Your task to perform on an android device: toggle location history Image 0: 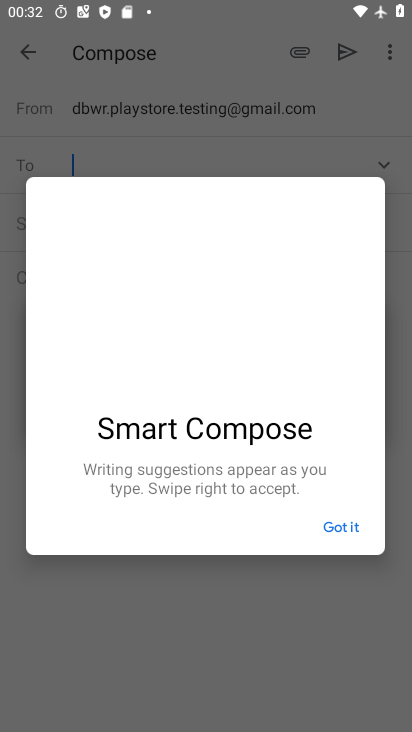
Step 0: press home button
Your task to perform on an android device: toggle location history Image 1: 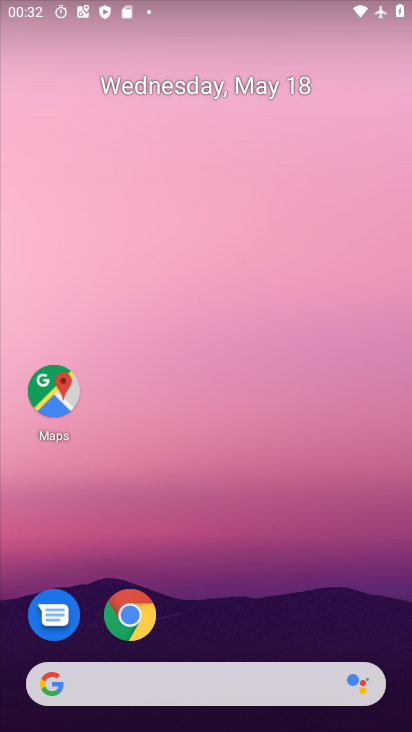
Step 1: drag from (208, 602) to (240, 238)
Your task to perform on an android device: toggle location history Image 2: 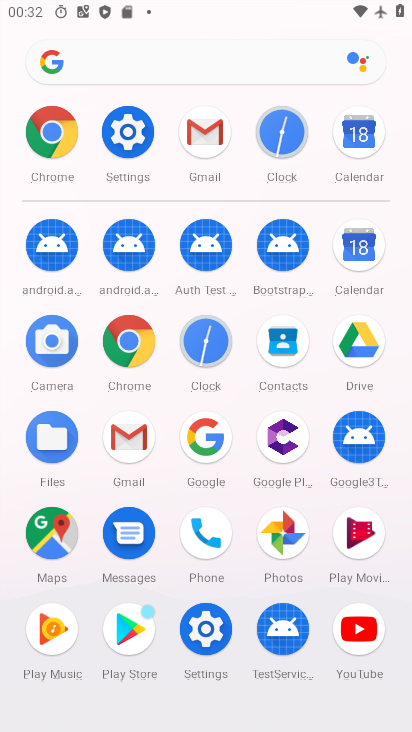
Step 2: click (120, 132)
Your task to perform on an android device: toggle location history Image 3: 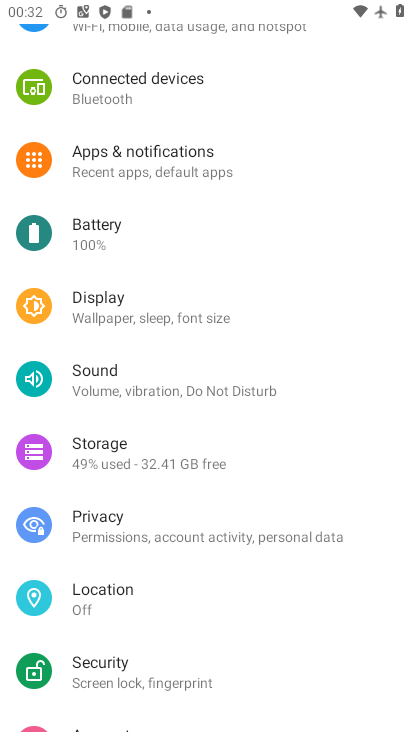
Step 3: click (148, 612)
Your task to perform on an android device: toggle location history Image 4: 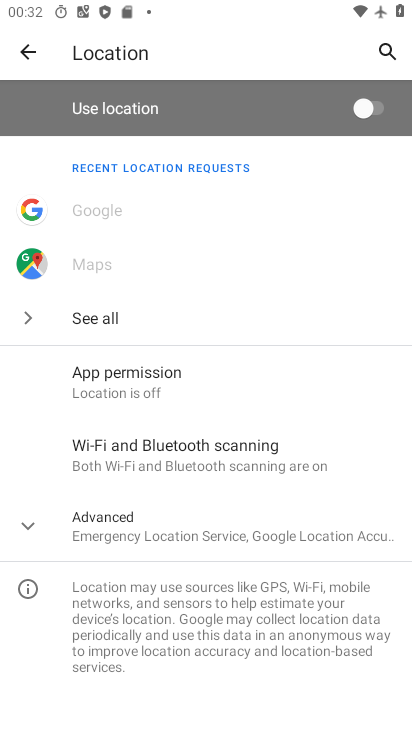
Step 4: click (169, 541)
Your task to perform on an android device: toggle location history Image 5: 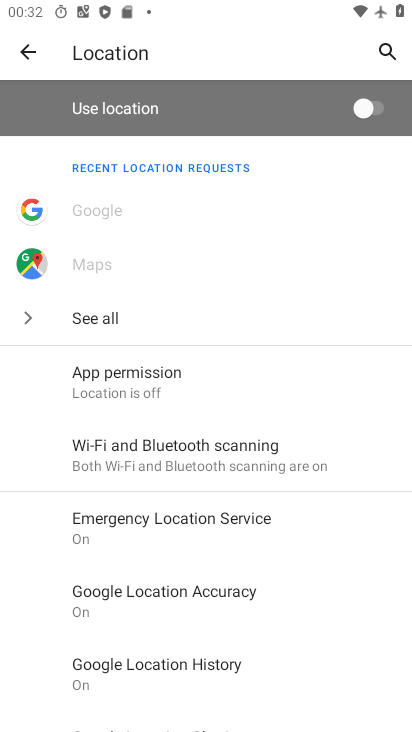
Step 5: click (253, 479)
Your task to perform on an android device: toggle location history Image 6: 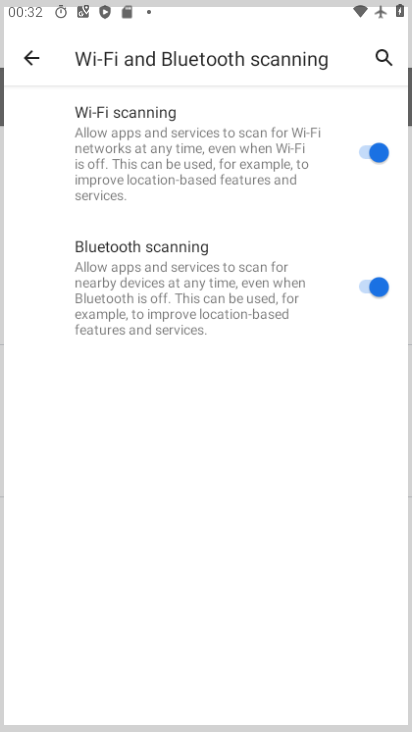
Step 6: click (221, 658)
Your task to perform on an android device: toggle location history Image 7: 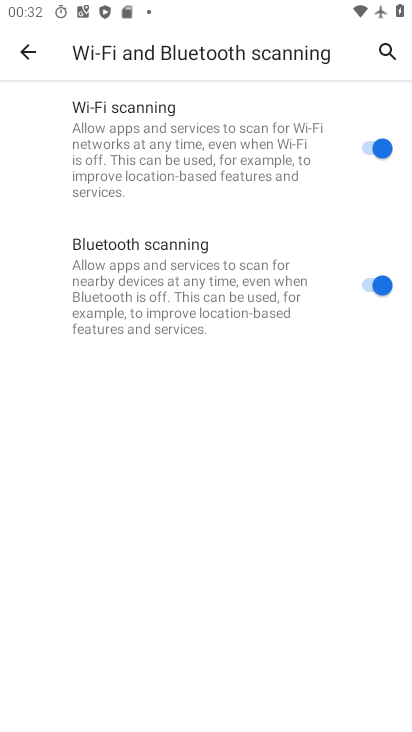
Step 7: click (30, 49)
Your task to perform on an android device: toggle location history Image 8: 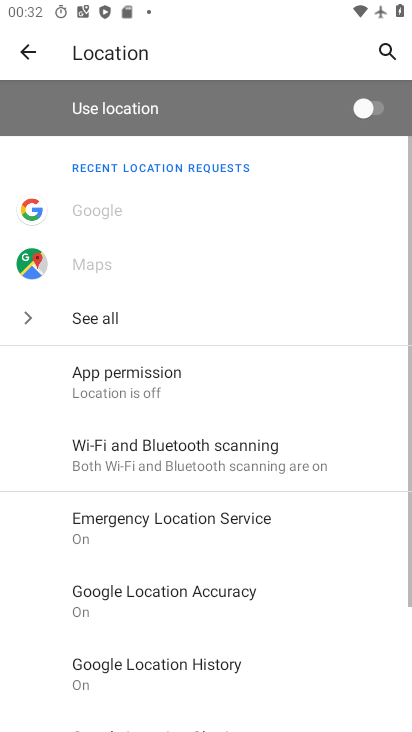
Step 8: drag from (201, 676) to (230, 490)
Your task to perform on an android device: toggle location history Image 9: 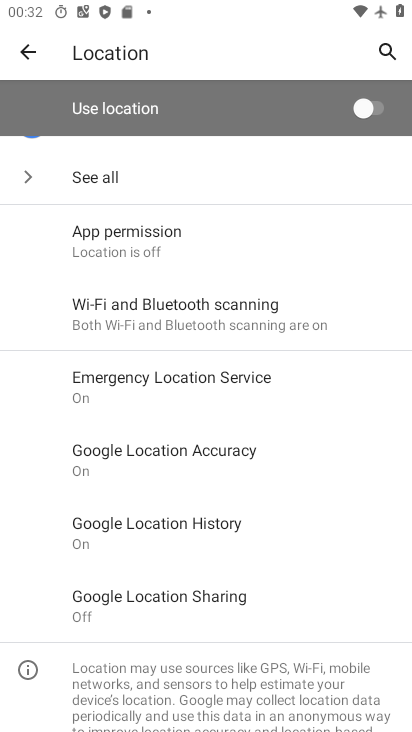
Step 9: click (219, 534)
Your task to perform on an android device: toggle location history Image 10: 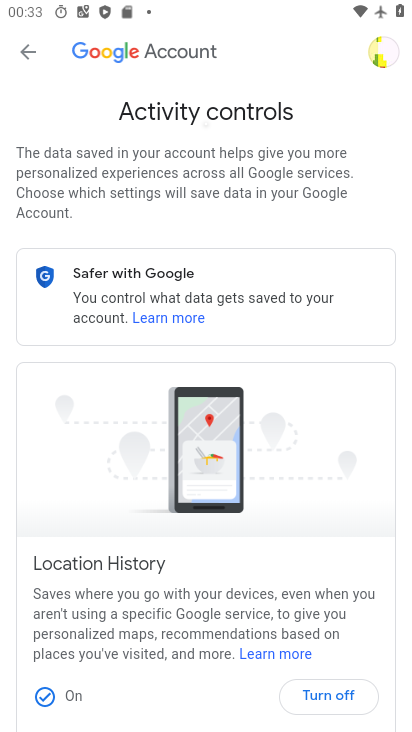
Step 10: drag from (252, 659) to (302, 228)
Your task to perform on an android device: toggle location history Image 11: 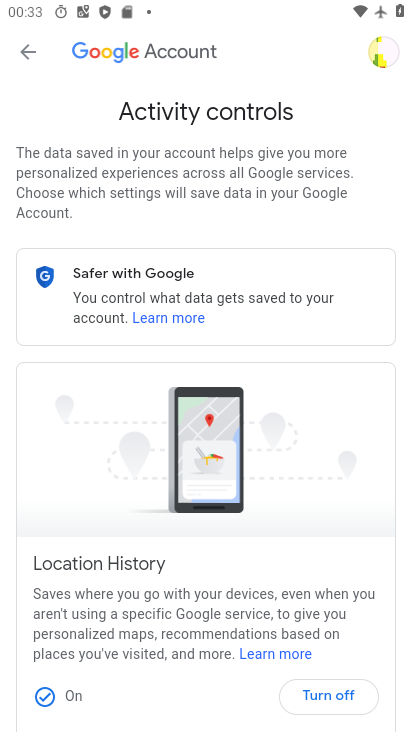
Step 11: drag from (249, 552) to (278, 301)
Your task to perform on an android device: toggle location history Image 12: 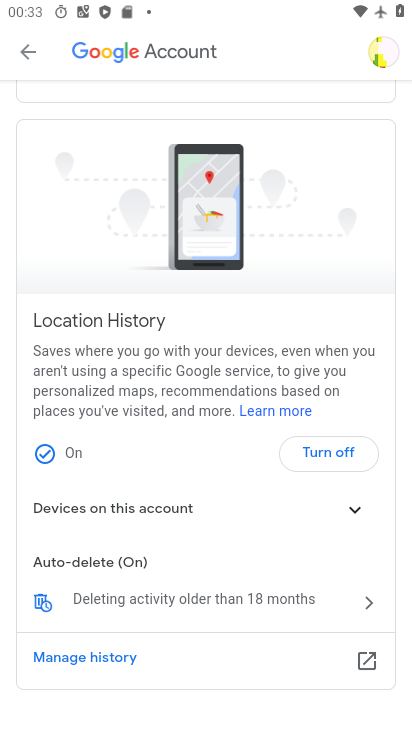
Step 12: click (304, 440)
Your task to perform on an android device: toggle location history Image 13: 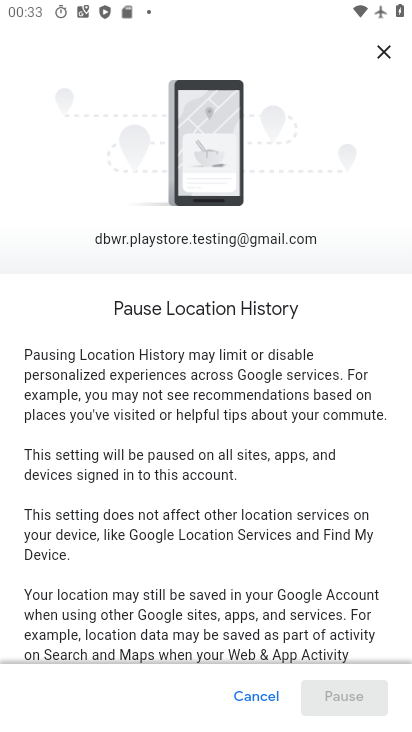
Step 13: drag from (304, 629) to (313, 277)
Your task to perform on an android device: toggle location history Image 14: 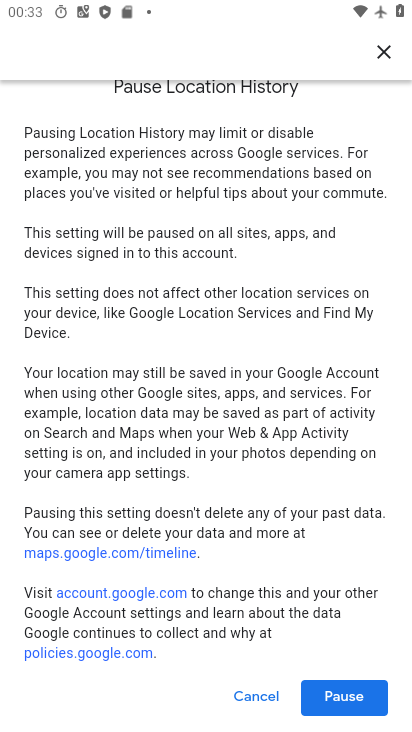
Step 14: drag from (281, 543) to (294, 297)
Your task to perform on an android device: toggle location history Image 15: 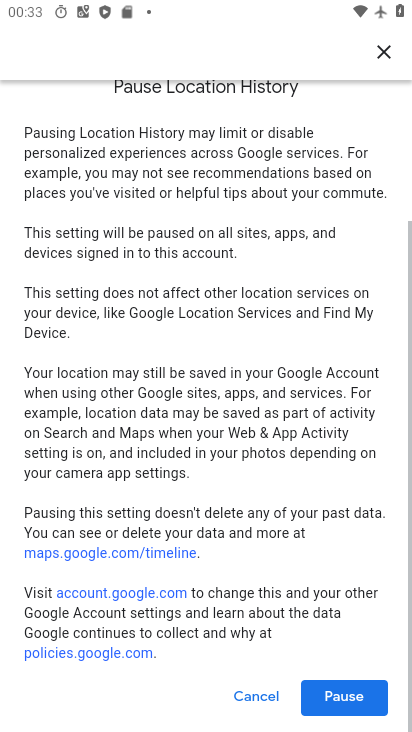
Step 15: click (338, 689)
Your task to perform on an android device: toggle location history Image 16: 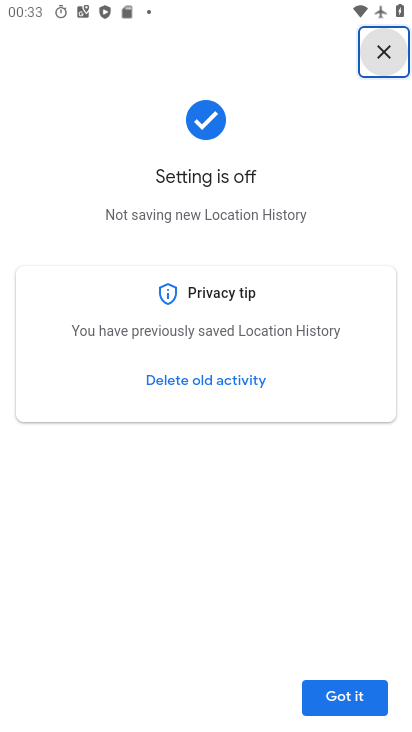
Step 16: task complete